Your task to perform on an android device: turn off location Image 0: 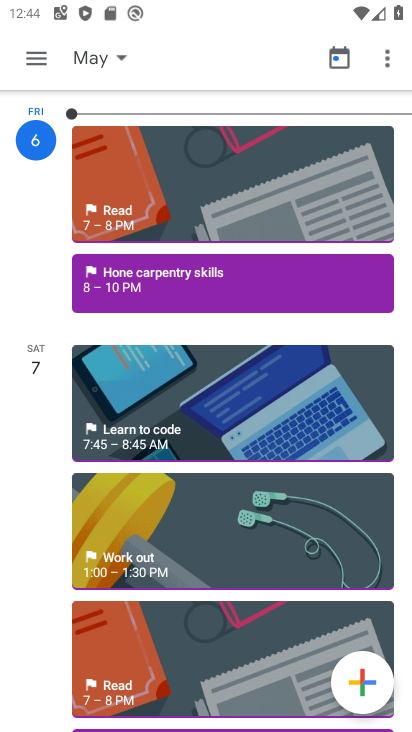
Step 0: press home button
Your task to perform on an android device: turn off location Image 1: 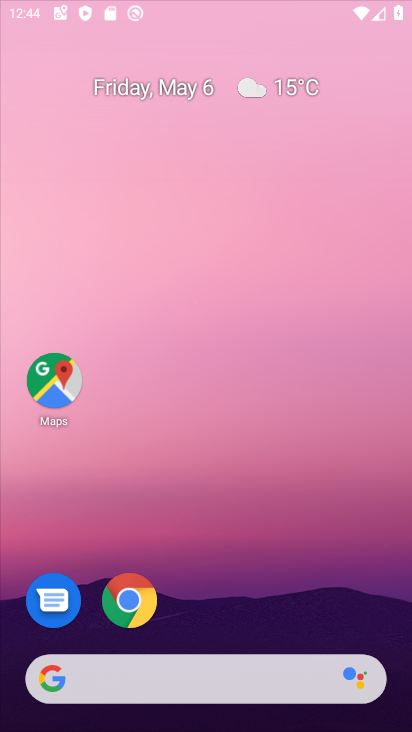
Step 1: drag from (362, 612) to (285, 37)
Your task to perform on an android device: turn off location Image 2: 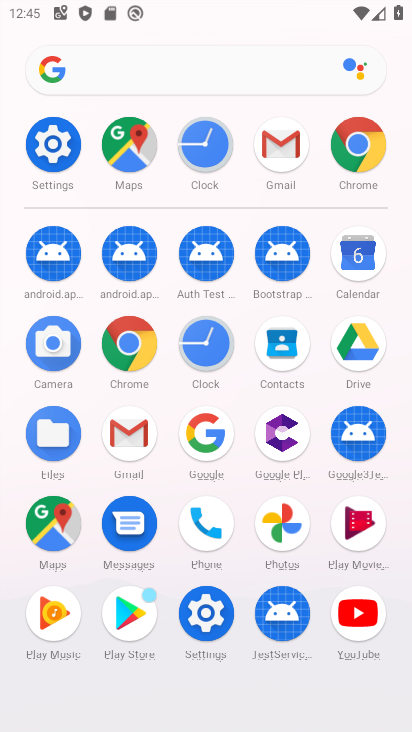
Step 2: click (208, 608)
Your task to perform on an android device: turn off location Image 3: 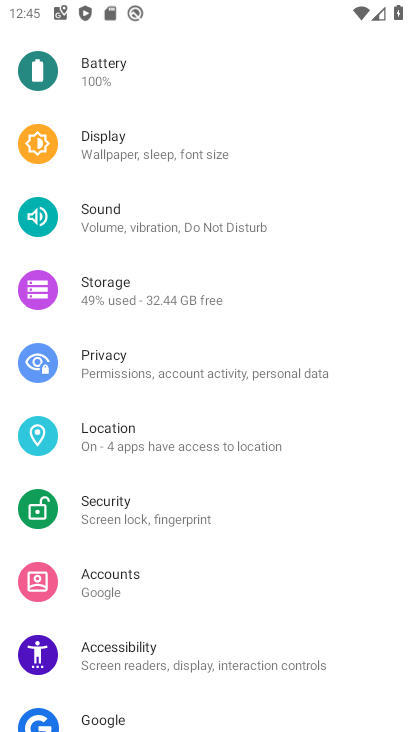
Step 3: click (136, 428)
Your task to perform on an android device: turn off location Image 4: 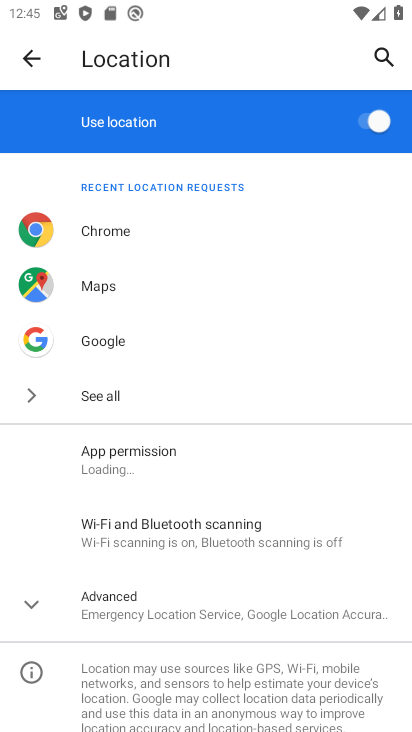
Step 4: click (340, 128)
Your task to perform on an android device: turn off location Image 5: 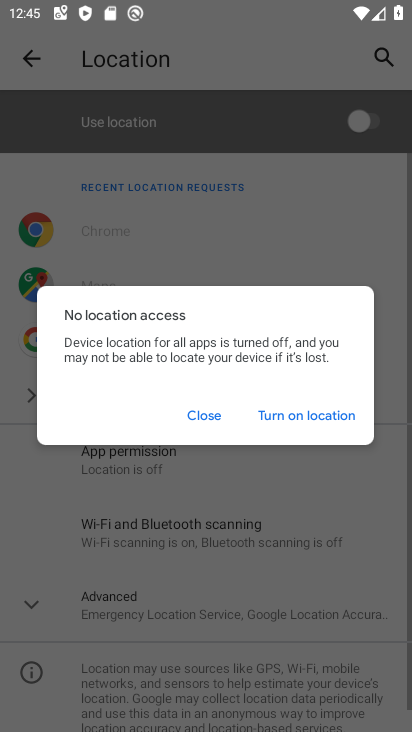
Step 5: task complete